Your task to perform on an android device: toggle data saver in the chrome app Image 0: 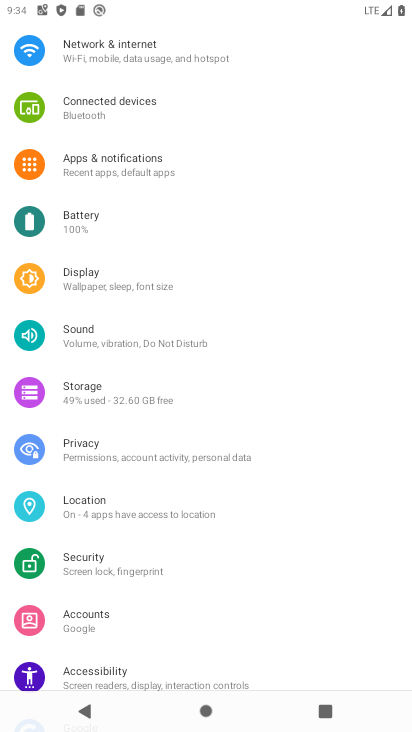
Step 0: press home button
Your task to perform on an android device: toggle data saver in the chrome app Image 1: 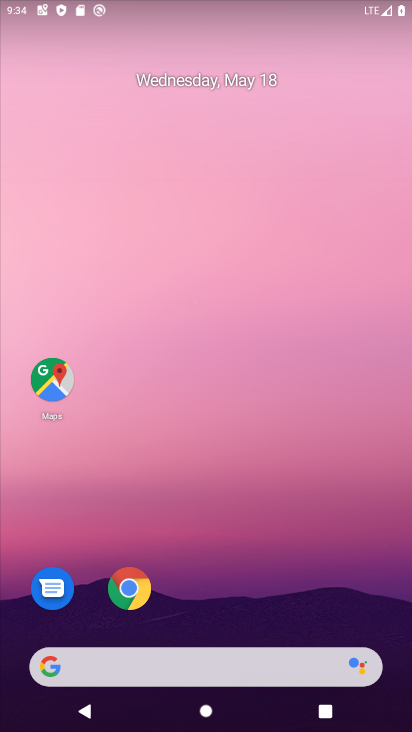
Step 1: click (125, 603)
Your task to perform on an android device: toggle data saver in the chrome app Image 2: 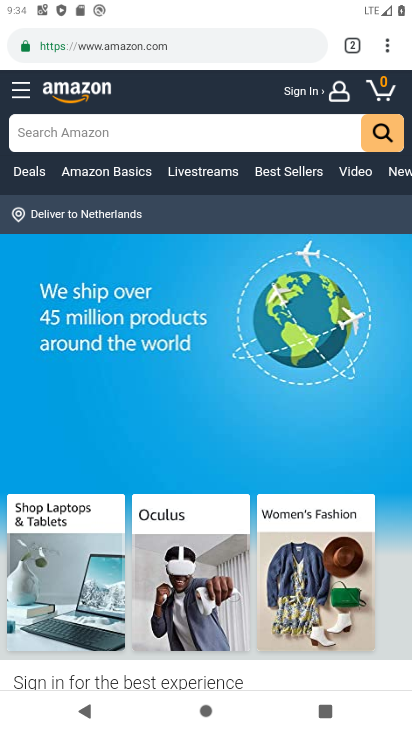
Step 2: click (388, 48)
Your task to perform on an android device: toggle data saver in the chrome app Image 3: 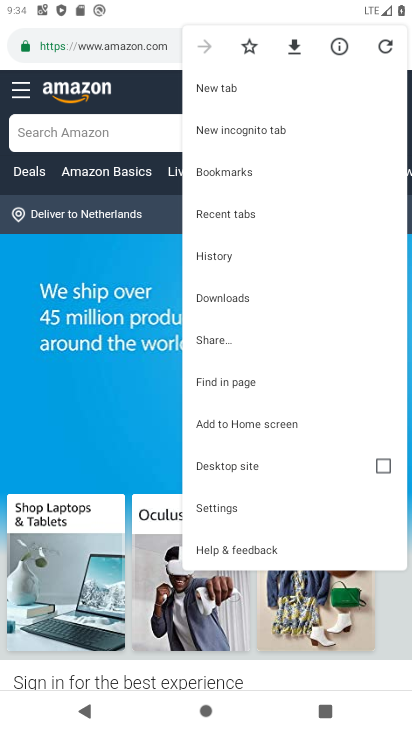
Step 3: click (227, 513)
Your task to perform on an android device: toggle data saver in the chrome app Image 4: 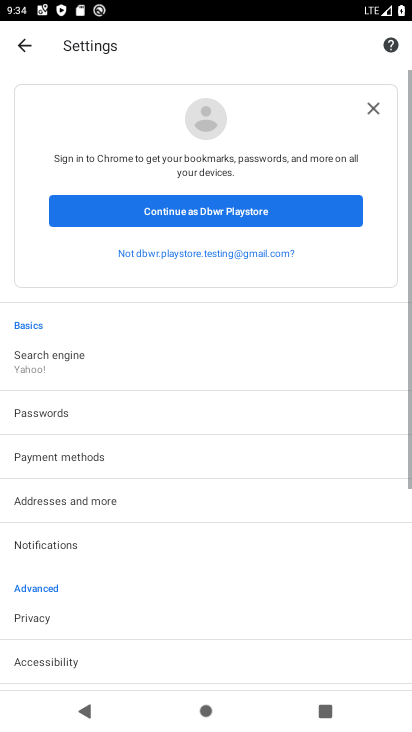
Step 4: drag from (202, 555) to (190, 213)
Your task to perform on an android device: toggle data saver in the chrome app Image 5: 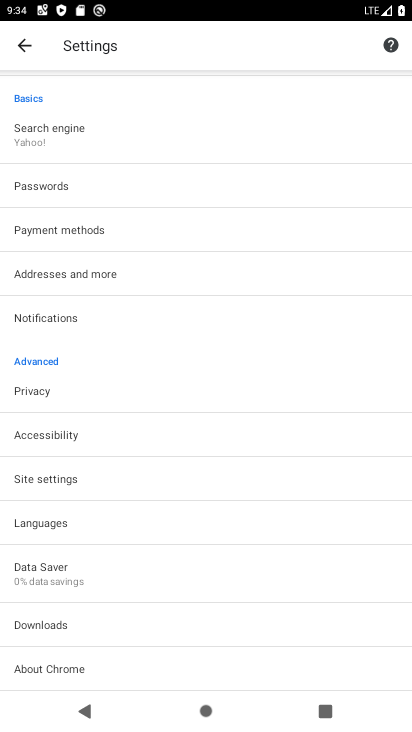
Step 5: click (33, 570)
Your task to perform on an android device: toggle data saver in the chrome app Image 6: 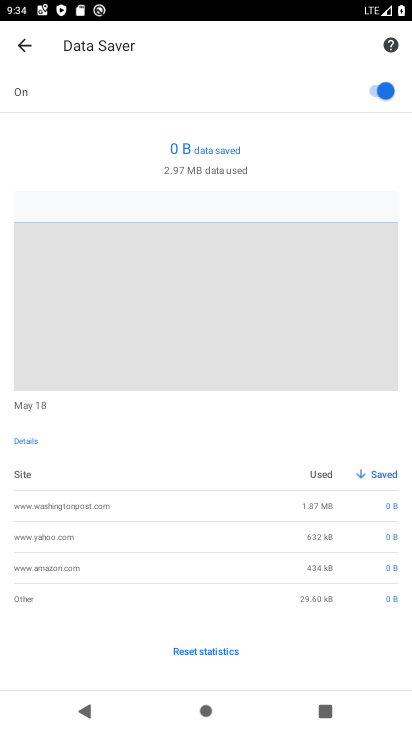
Step 6: task complete